Your task to perform on an android device: toggle wifi Image 0: 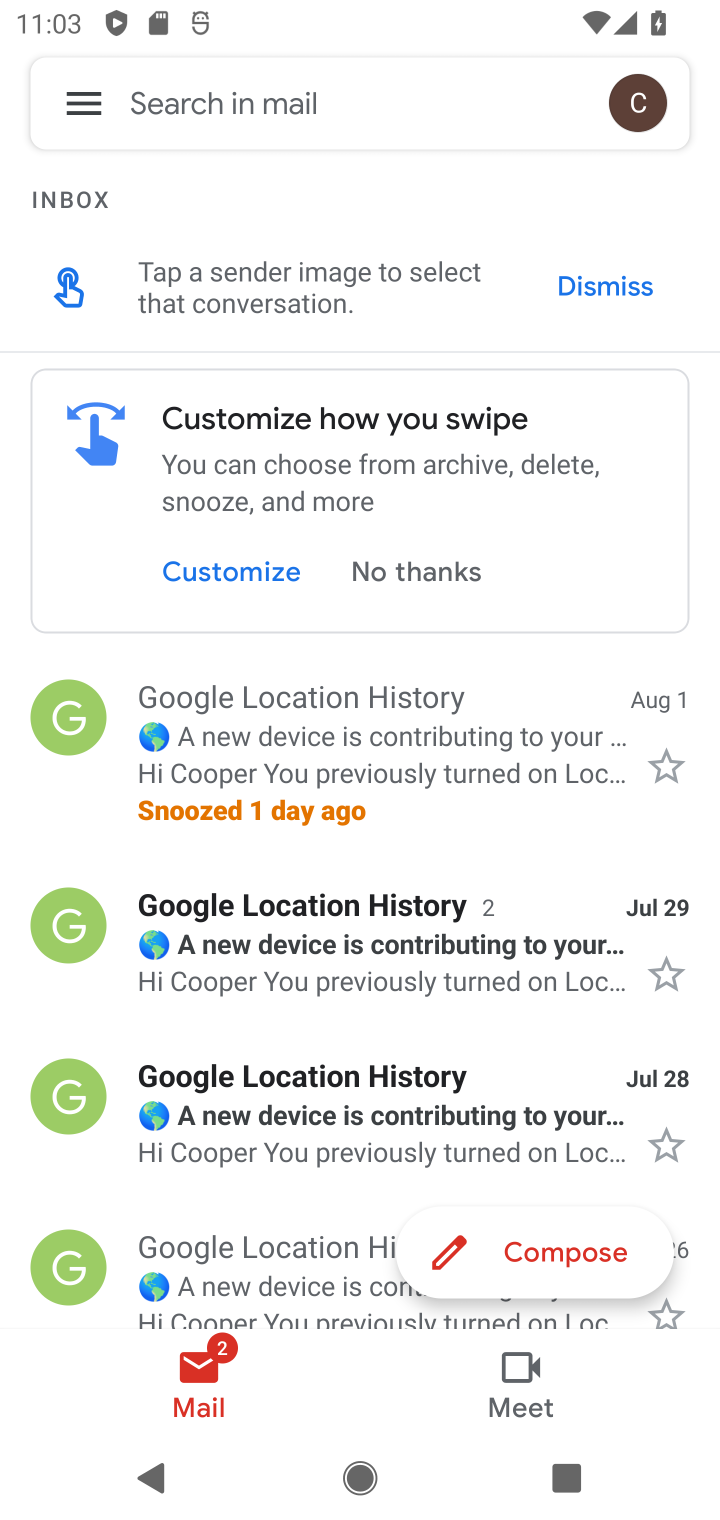
Step 0: press home button
Your task to perform on an android device: toggle wifi Image 1: 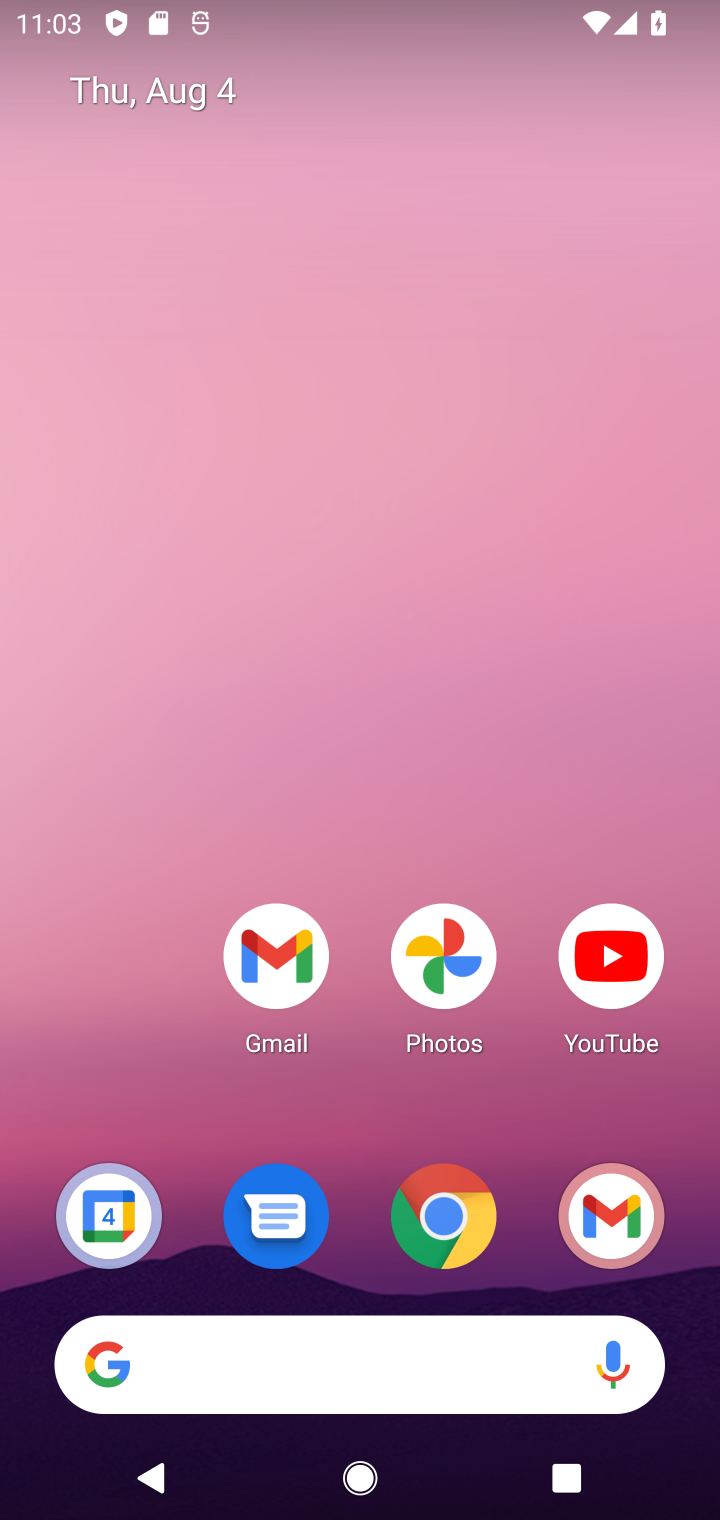
Step 1: drag from (148, 1010) to (165, 54)
Your task to perform on an android device: toggle wifi Image 2: 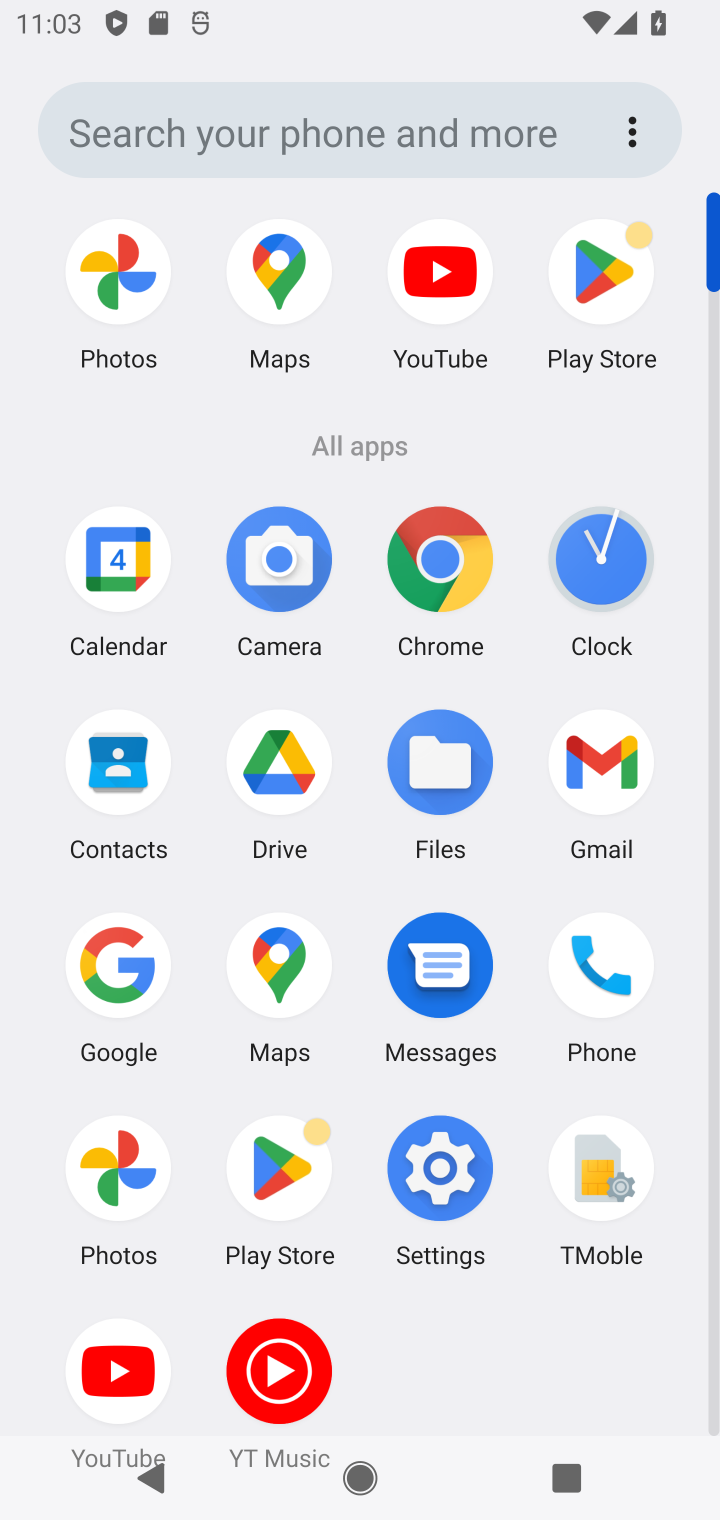
Step 2: click (430, 1152)
Your task to perform on an android device: toggle wifi Image 3: 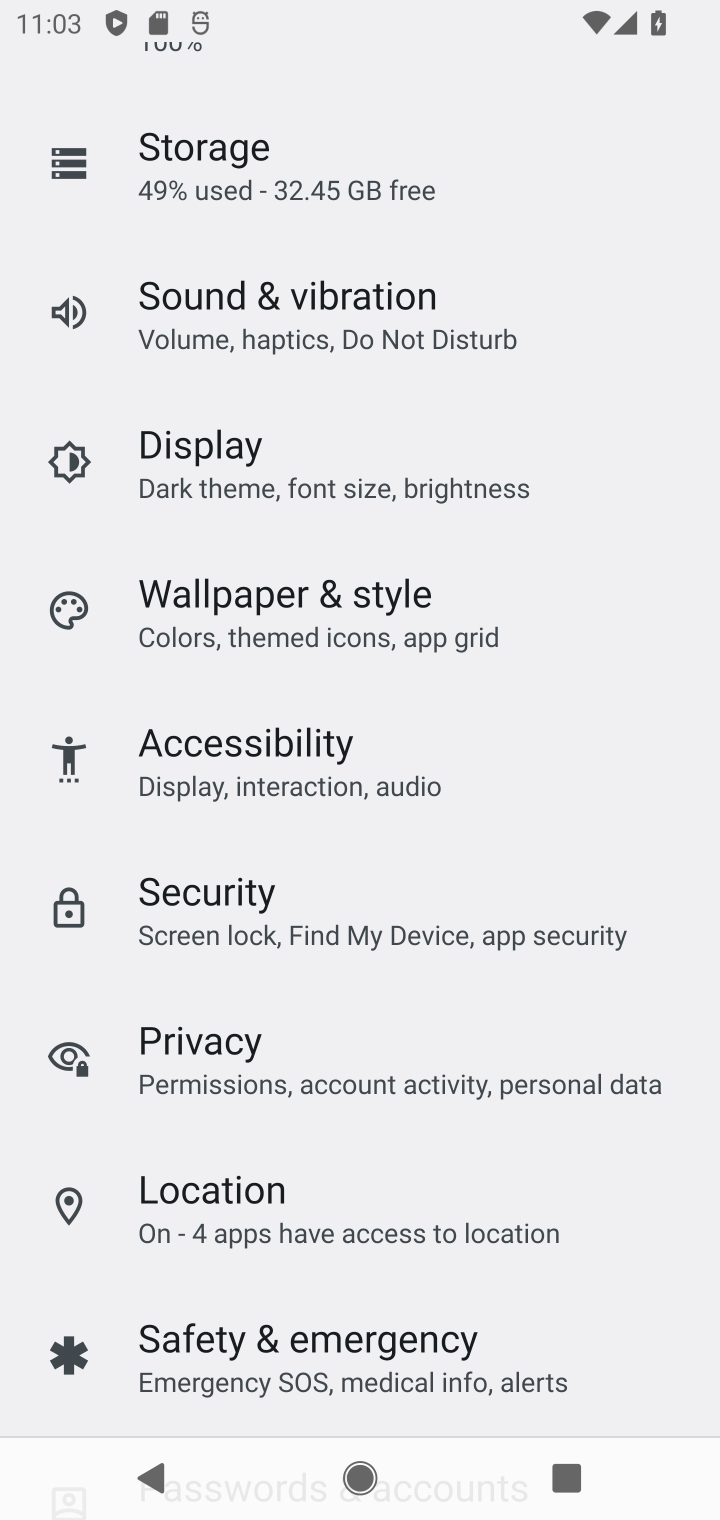
Step 3: drag from (417, 290) to (403, 1168)
Your task to perform on an android device: toggle wifi Image 4: 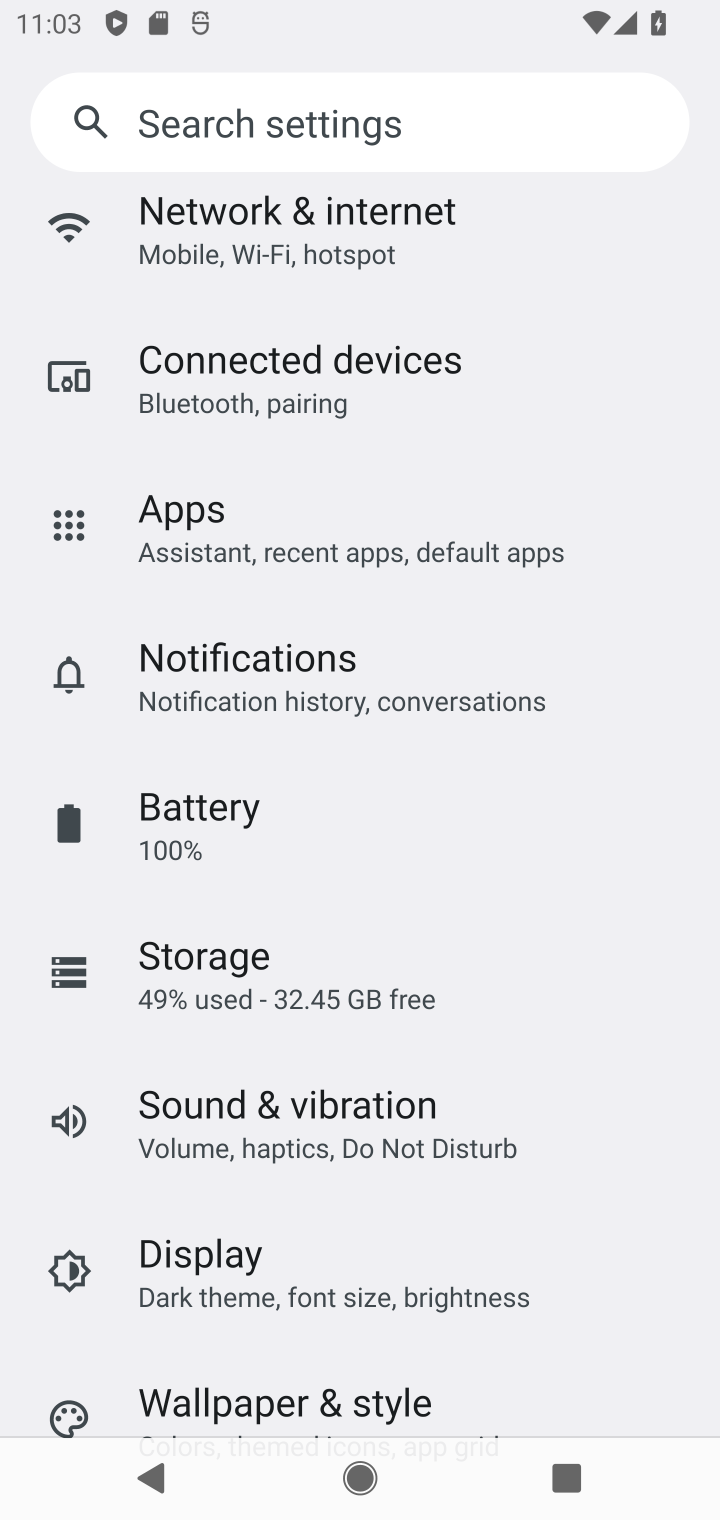
Step 4: click (364, 228)
Your task to perform on an android device: toggle wifi Image 5: 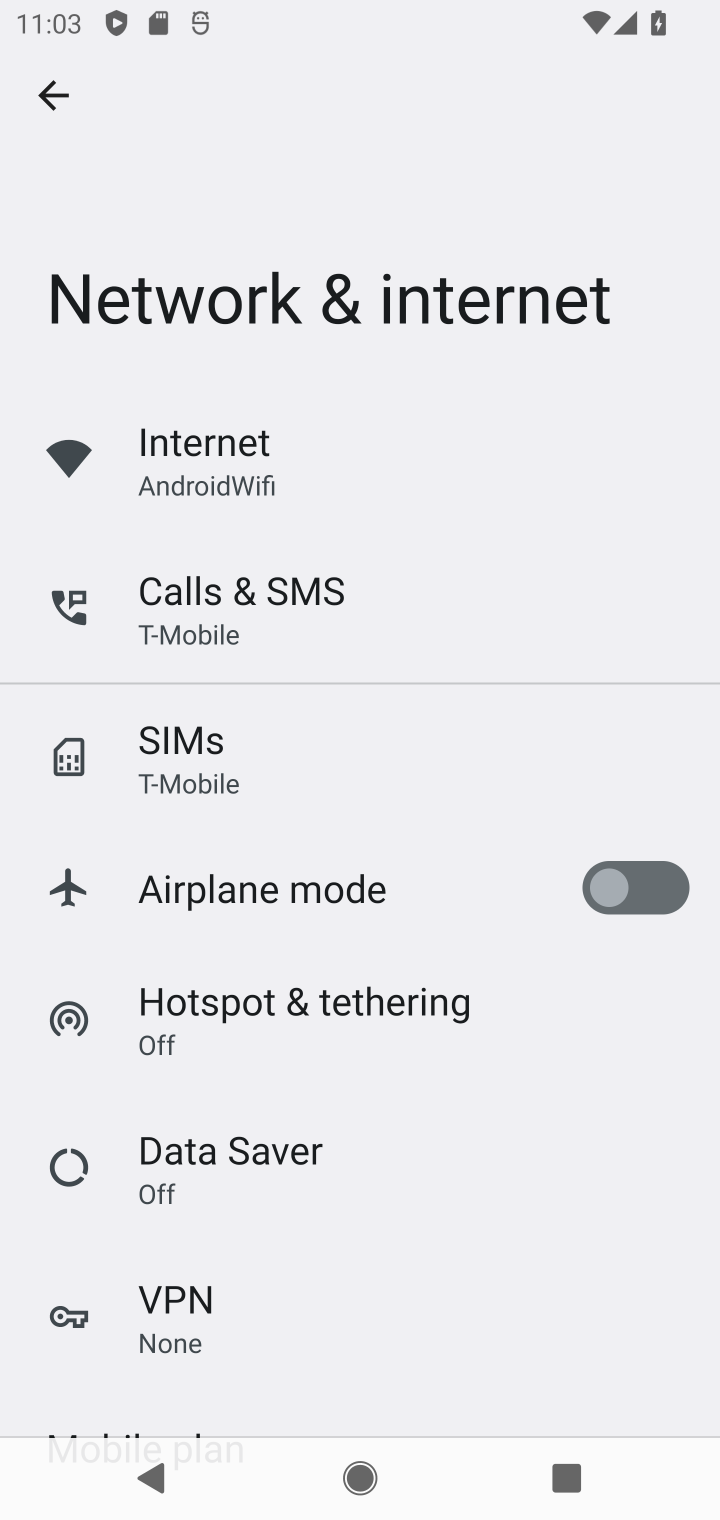
Step 5: click (273, 452)
Your task to perform on an android device: toggle wifi Image 6: 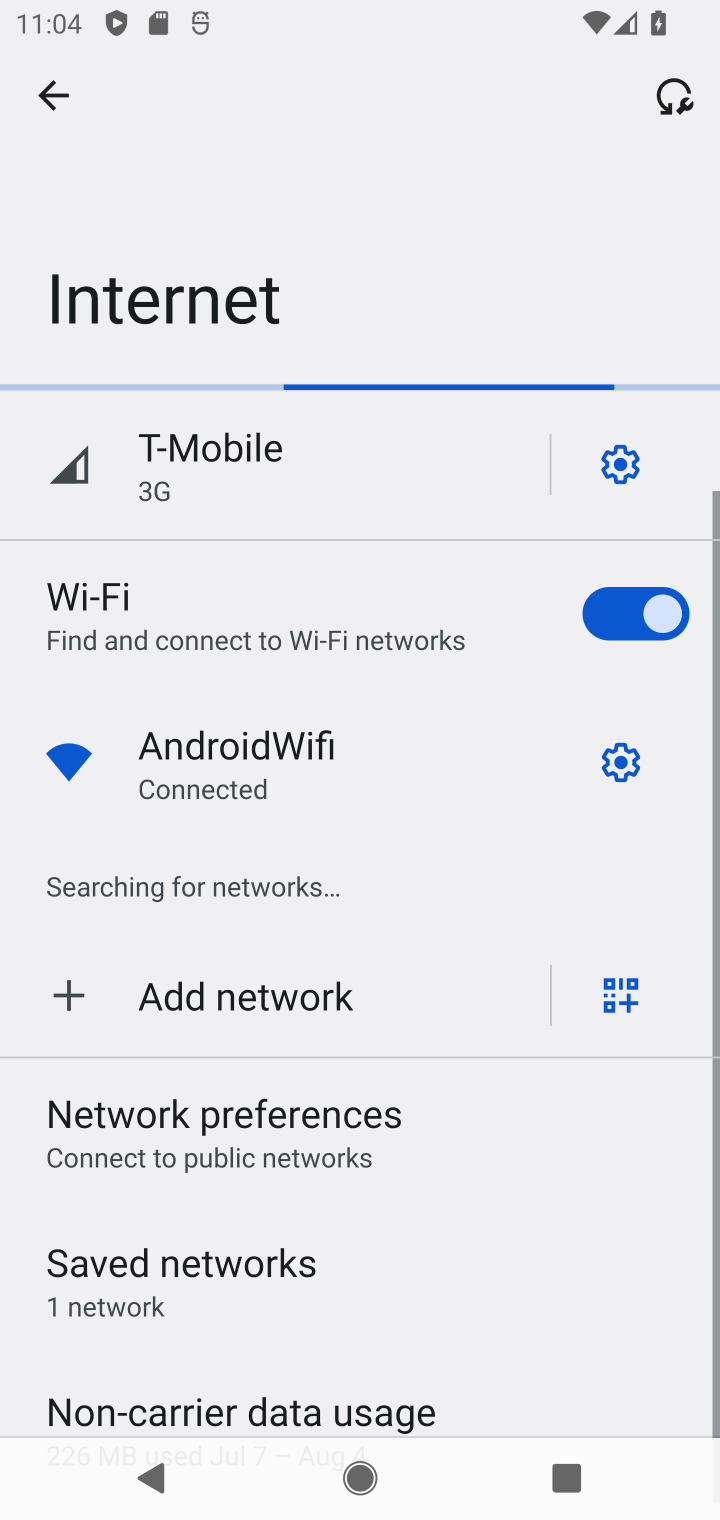
Step 6: click (616, 618)
Your task to perform on an android device: toggle wifi Image 7: 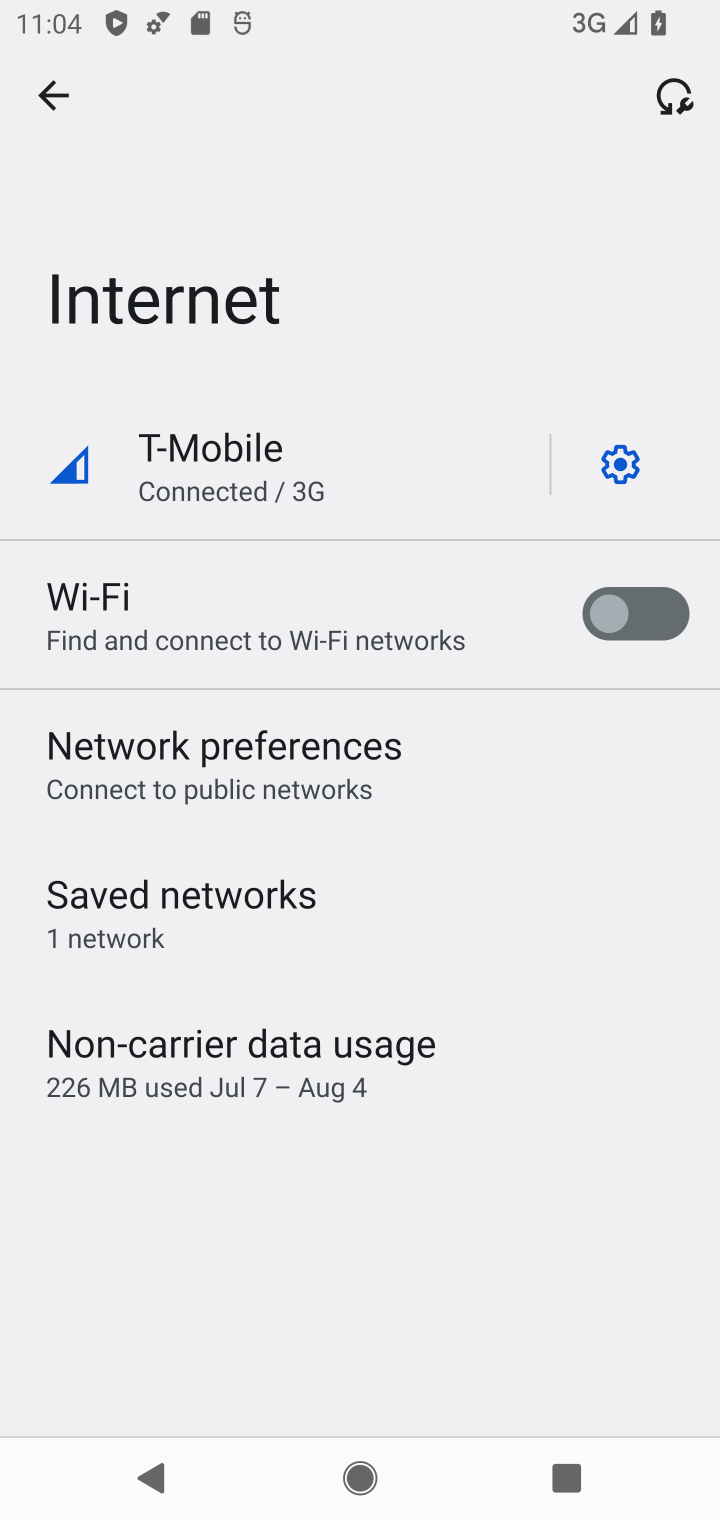
Step 7: task complete